Your task to perform on an android device: change text size in settings app Image 0: 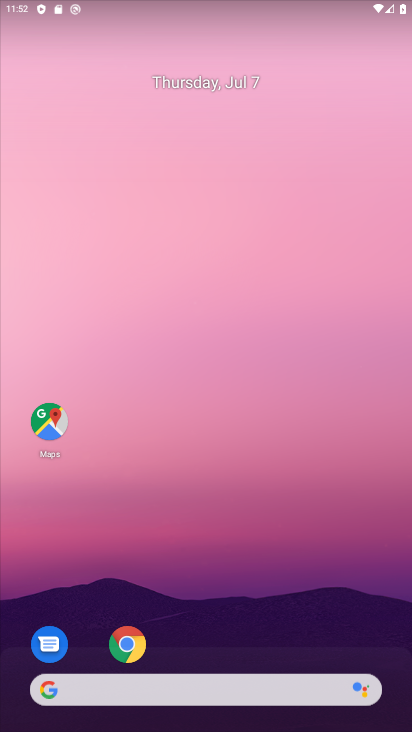
Step 0: drag from (187, 711) to (210, 107)
Your task to perform on an android device: change text size in settings app Image 1: 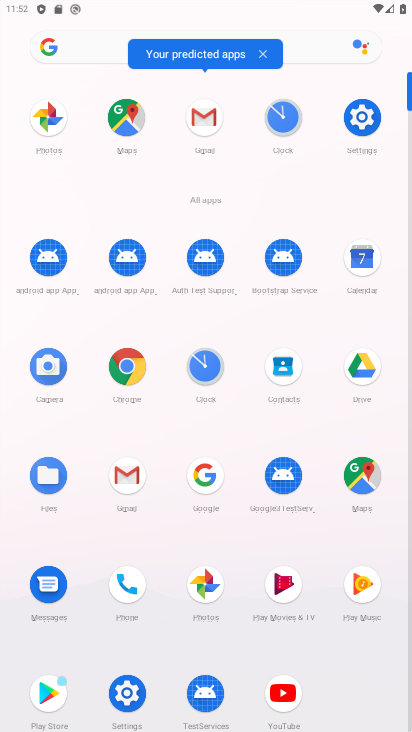
Step 1: click (358, 129)
Your task to perform on an android device: change text size in settings app Image 2: 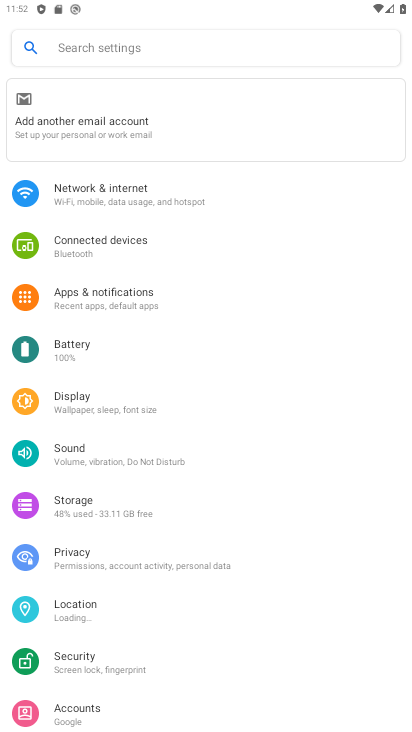
Step 2: click (137, 407)
Your task to perform on an android device: change text size in settings app Image 3: 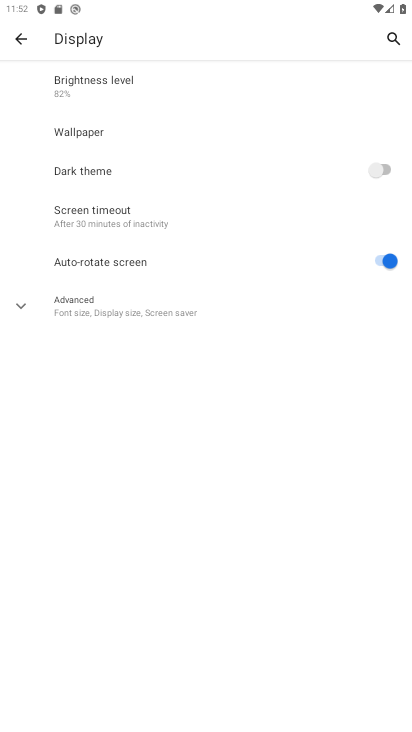
Step 3: click (169, 319)
Your task to perform on an android device: change text size in settings app Image 4: 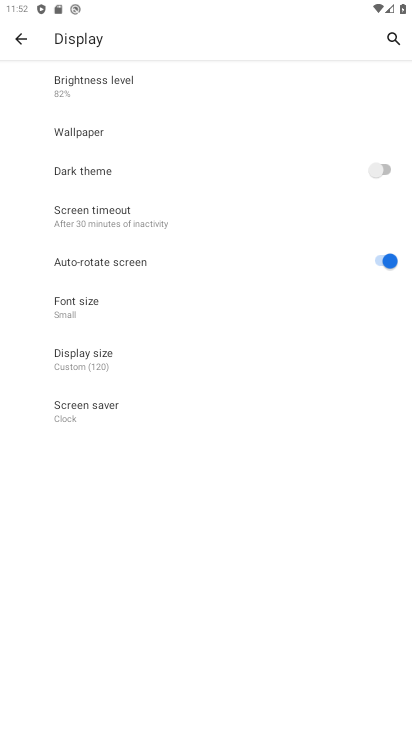
Step 4: click (90, 305)
Your task to perform on an android device: change text size in settings app Image 5: 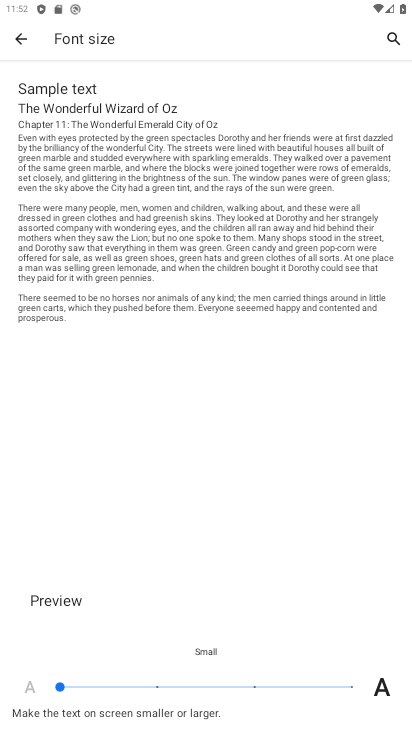
Step 5: task complete